Your task to perform on an android device: Open eBay Image 0: 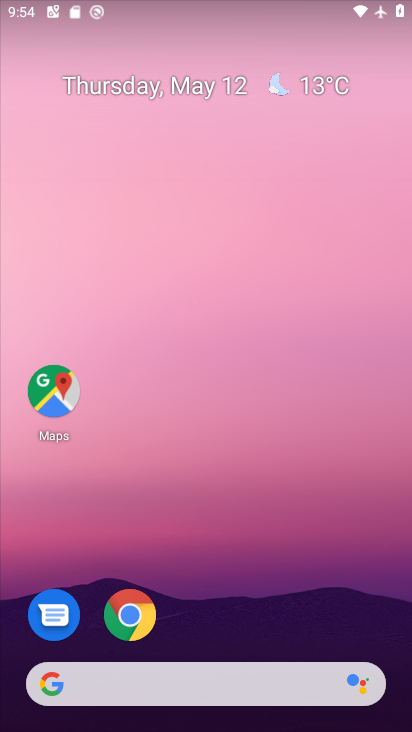
Step 0: click (134, 616)
Your task to perform on an android device: Open eBay Image 1: 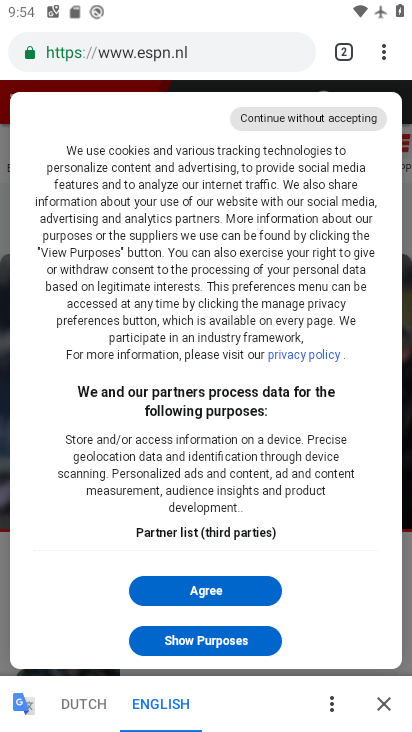
Step 1: click (387, 54)
Your task to perform on an android device: Open eBay Image 2: 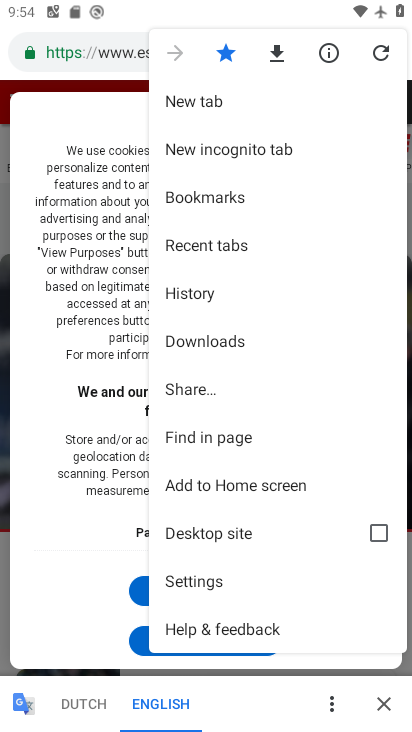
Step 2: click (205, 98)
Your task to perform on an android device: Open eBay Image 3: 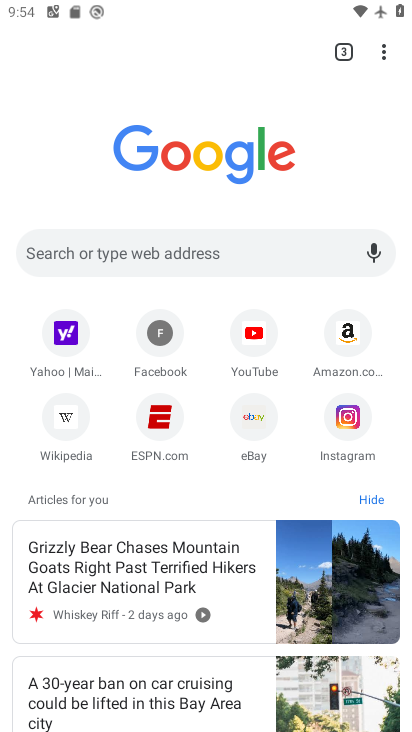
Step 3: click (250, 431)
Your task to perform on an android device: Open eBay Image 4: 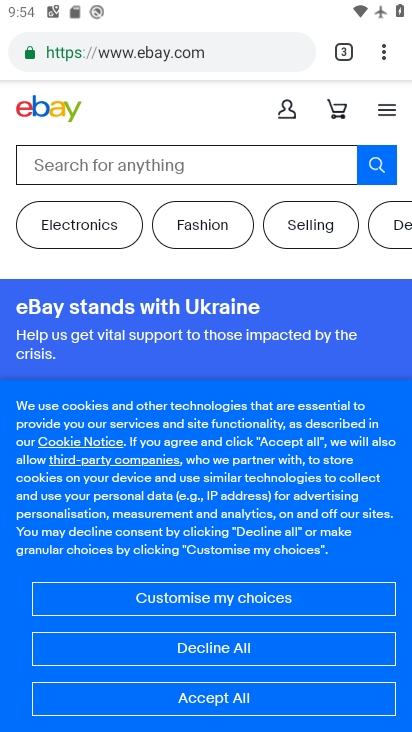
Step 4: task complete